Your task to perform on an android device: Go to Google Image 0: 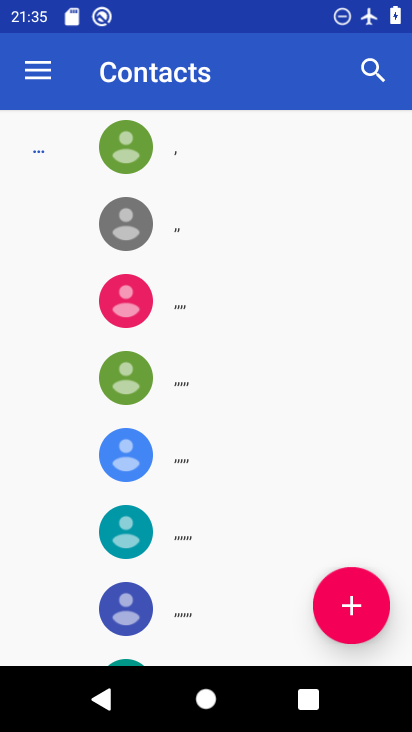
Step 0: press home button
Your task to perform on an android device: Go to Google Image 1: 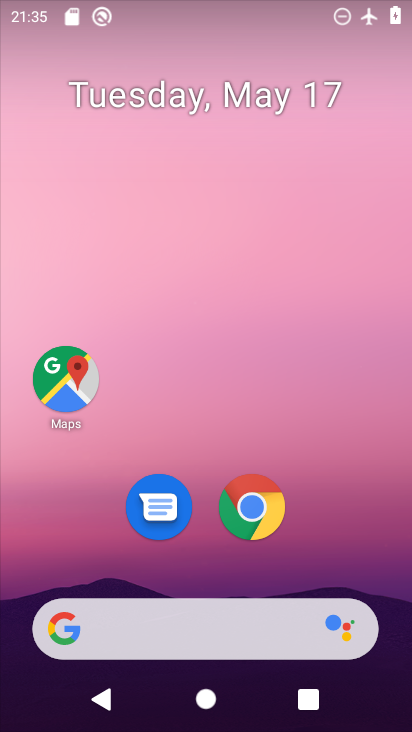
Step 1: drag from (376, 565) to (302, 1)
Your task to perform on an android device: Go to Google Image 2: 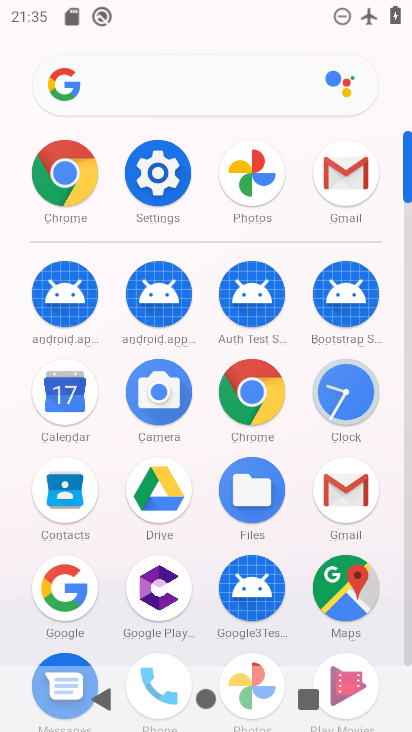
Step 2: click (51, 591)
Your task to perform on an android device: Go to Google Image 3: 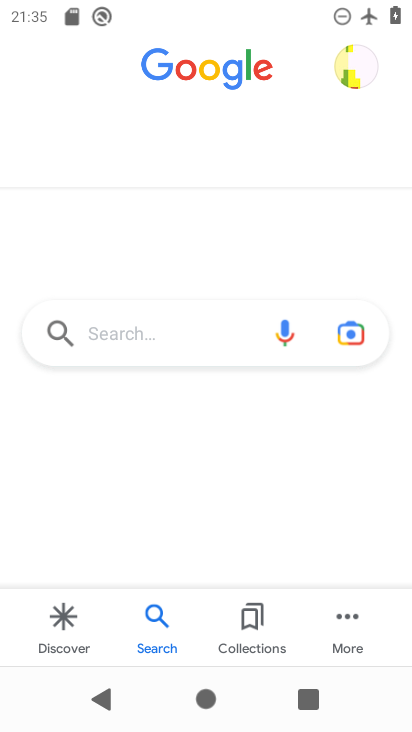
Step 3: task complete